Your task to perform on an android device: see tabs open on other devices in the chrome app Image 0: 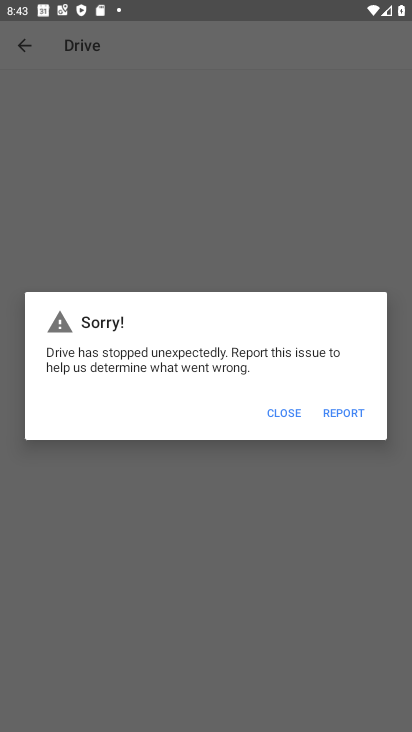
Step 0: press home button
Your task to perform on an android device: see tabs open on other devices in the chrome app Image 1: 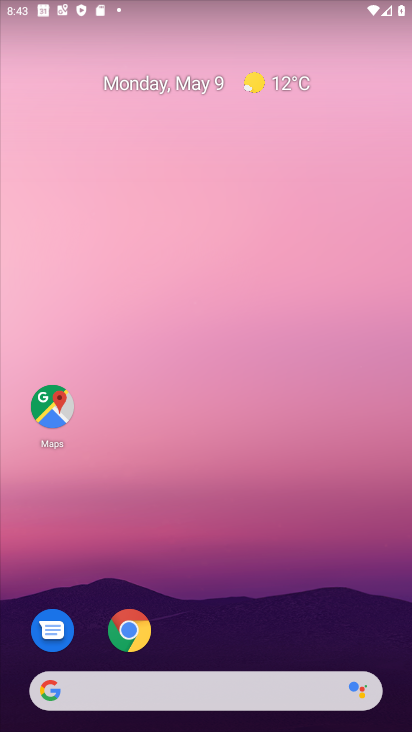
Step 1: click (132, 629)
Your task to perform on an android device: see tabs open on other devices in the chrome app Image 2: 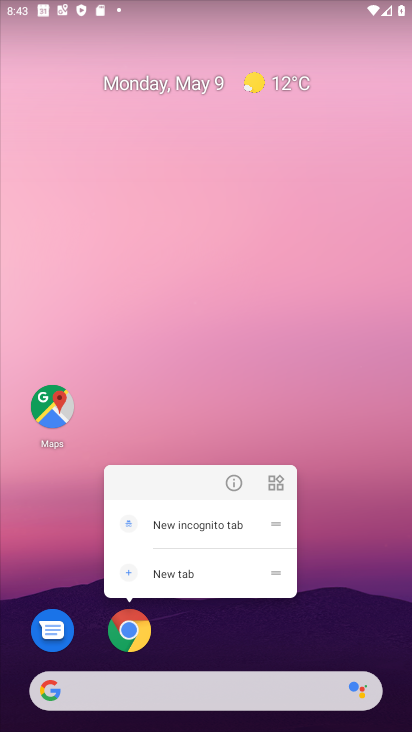
Step 2: click (132, 629)
Your task to perform on an android device: see tabs open on other devices in the chrome app Image 3: 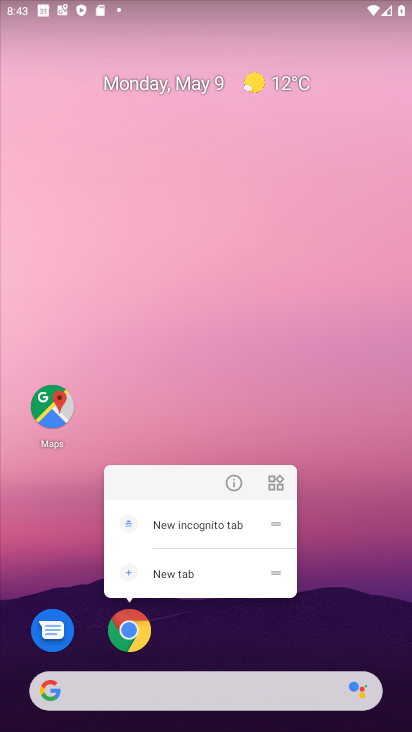
Step 3: click (132, 629)
Your task to perform on an android device: see tabs open on other devices in the chrome app Image 4: 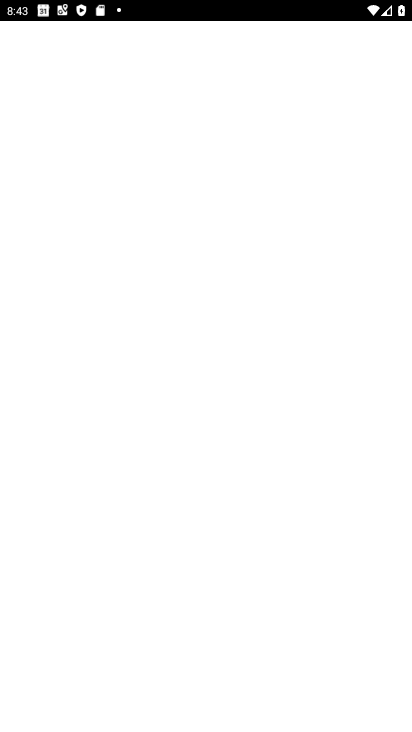
Step 4: click (129, 630)
Your task to perform on an android device: see tabs open on other devices in the chrome app Image 5: 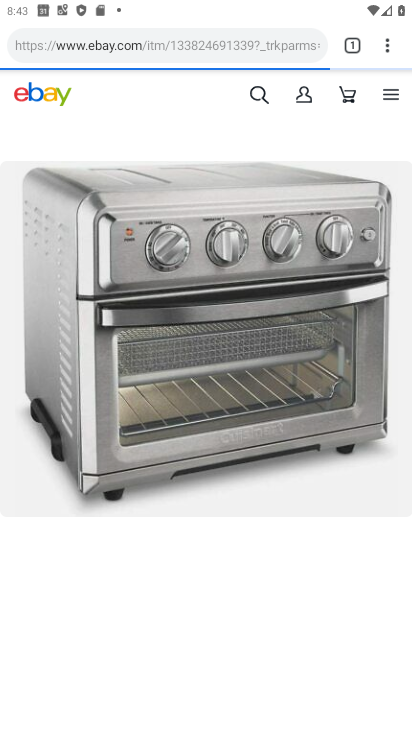
Step 5: click (128, 631)
Your task to perform on an android device: see tabs open on other devices in the chrome app Image 6: 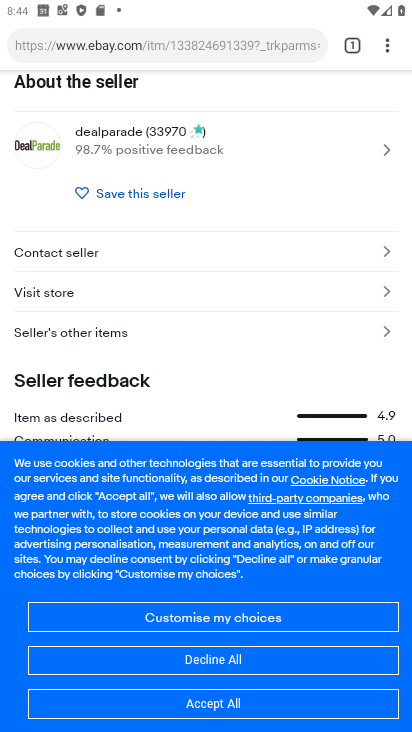
Step 6: click (347, 35)
Your task to perform on an android device: see tabs open on other devices in the chrome app Image 7: 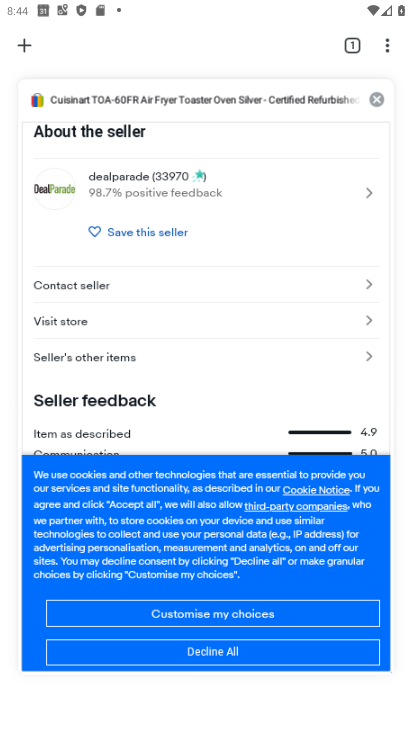
Step 7: task complete